Your task to perform on an android device: turn on notifications settings in the gmail app Image 0: 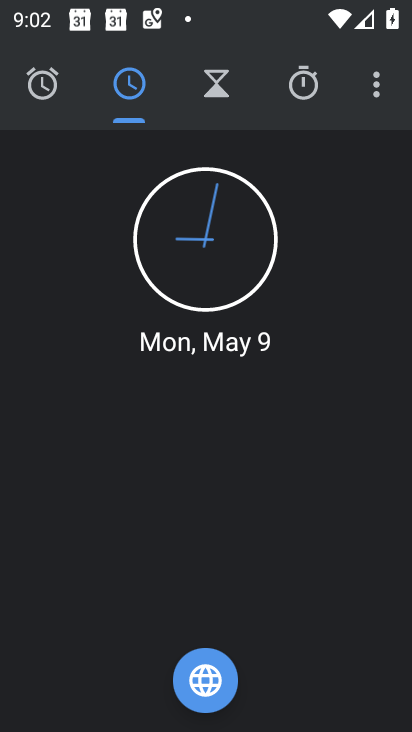
Step 0: press home button
Your task to perform on an android device: turn on notifications settings in the gmail app Image 1: 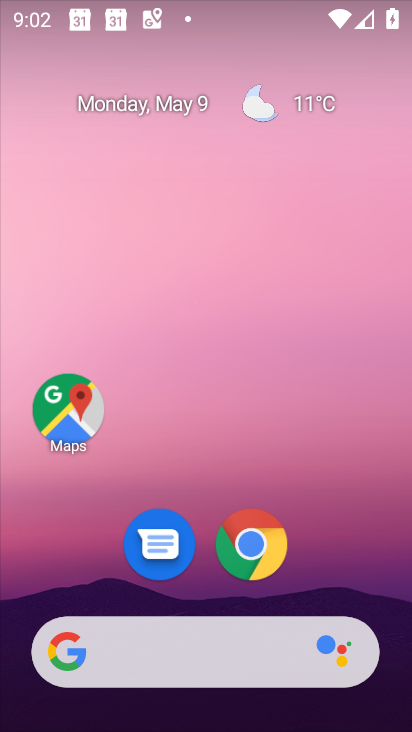
Step 1: drag from (390, 592) to (392, 234)
Your task to perform on an android device: turn on notifications settings in the gmail app Image 2: 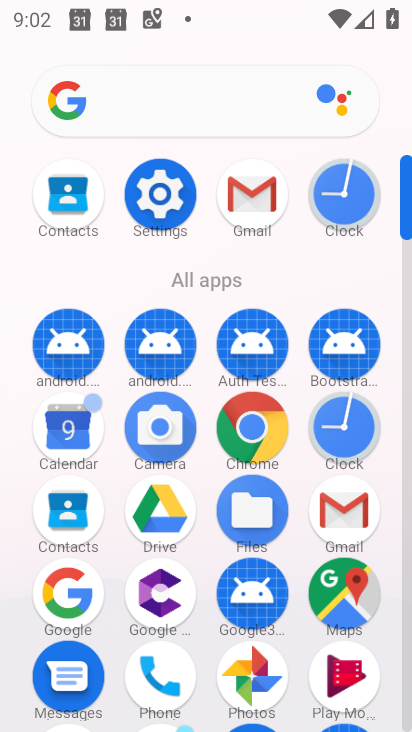
Step 2: click (336, 510)
Your task to perform on an android device: turn on notifications settings in the gmail app Image 3: 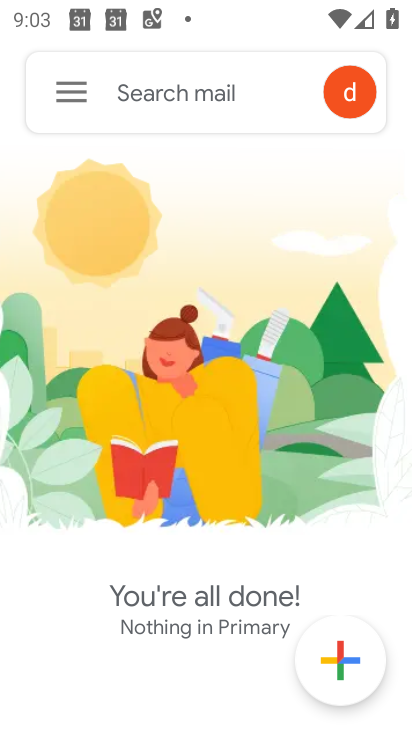
Step 3: click (75, 89)
Your task to perform on an android device: turn on notifications settings in the gmail app Image 4: 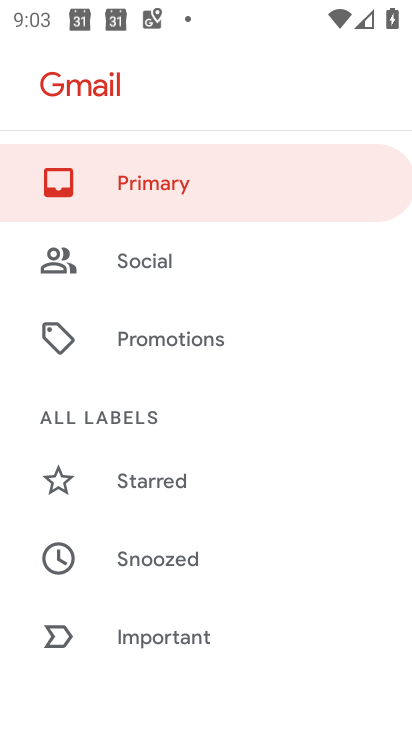
Step 4: drag from (376, 635) to (375, 344)
Your task to perform on an android device: turn on notifications settings in the gmail app Image 5: 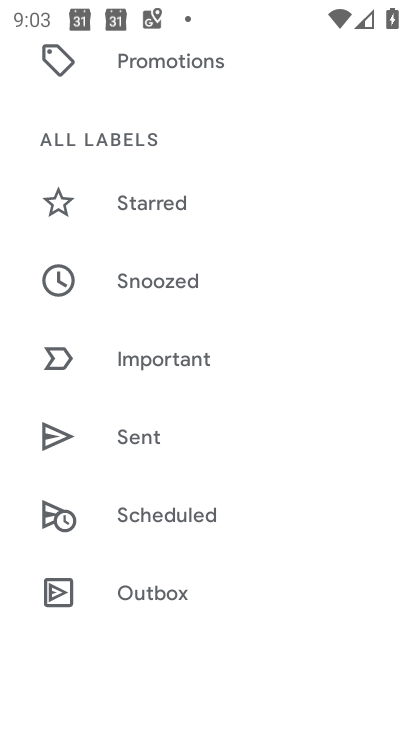
Step 5: drag from (312, 623) to (297, 311)
Your task to perform on an android device: turn on notifications settings in the gmail app Image 6: 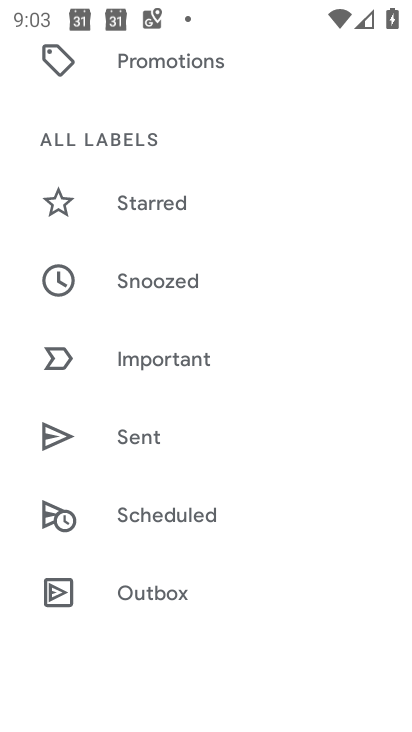
Step 6: drag from (341, 554) to (306, 244)
Your task to perform on an android device: turn on notifications settings in the gmail app Image 7: 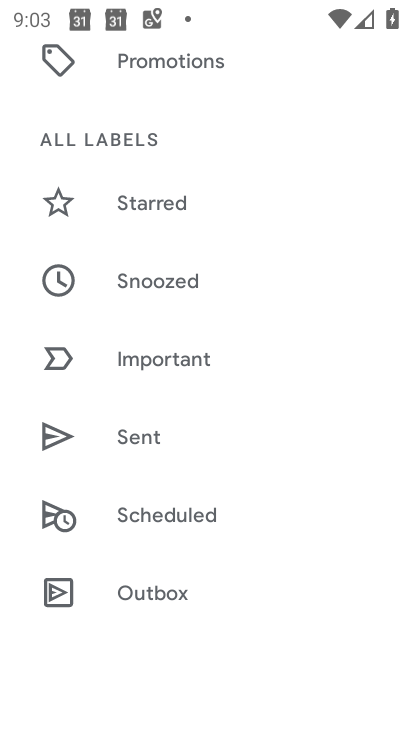
Step 7: drag from (327, 474) to (335, 205)
Your task to perform on an android device: turn on notifications settings in the gmail app Image 8: 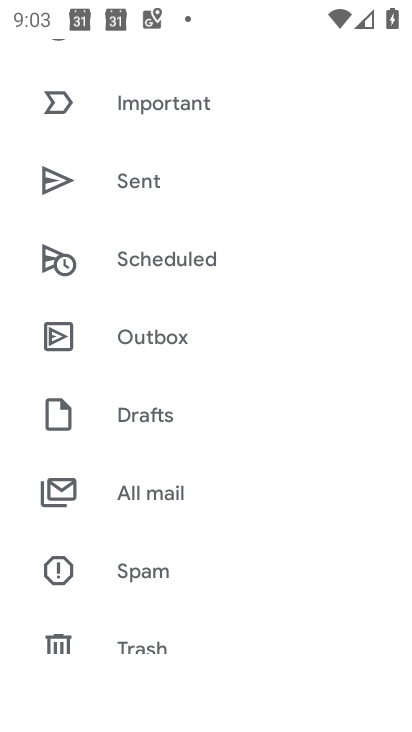
Step 8: drag from (359, 601) to (364, 156)
Your task to perform on an android device: turn on notifications settings in the gmail app Image 9: 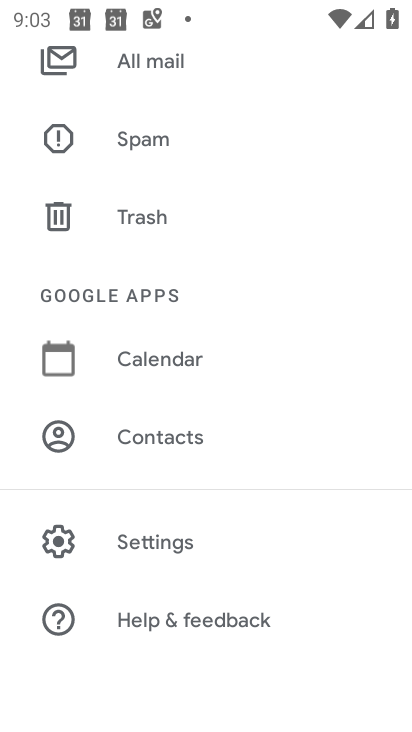
Step 9: click (164, 543)
Your task to perform on an android device: turn on notifications settings in the gmail app Image 10: 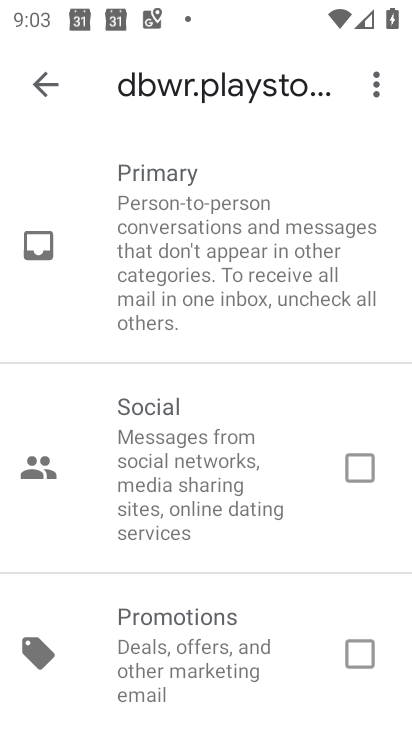
Step 10: click (45, 84)
Your task to perform on an android device: turn on notifications settings in the gmail app Image 11: 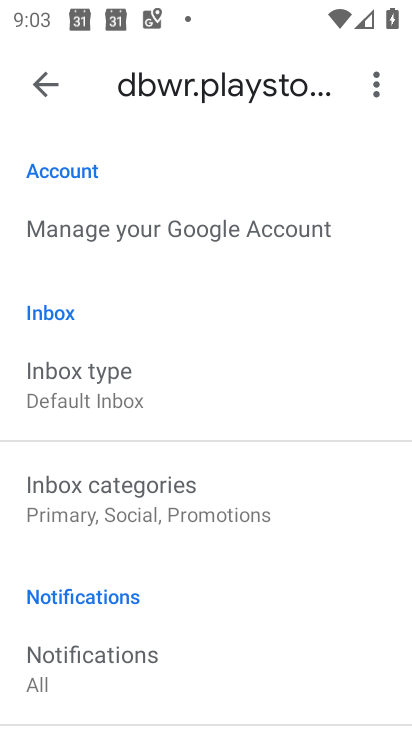
Step 11: click (67, 227)
Your task to perform on an android device: turn on notifications settings in the gmail app Image 12: 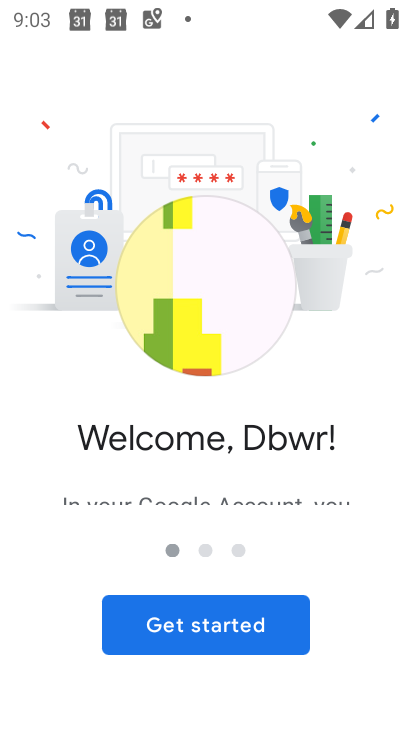
Step 12: click (220, 612)
Your task to perform on an android device: turn on notifications settings in the gmail app Image 13: 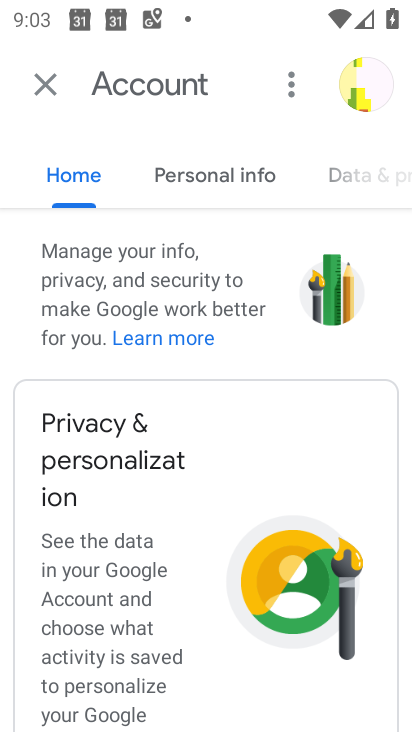
Step 13: press back button
Your task to perform on an android device: turn on notifications settings in the gmail app Image 14: 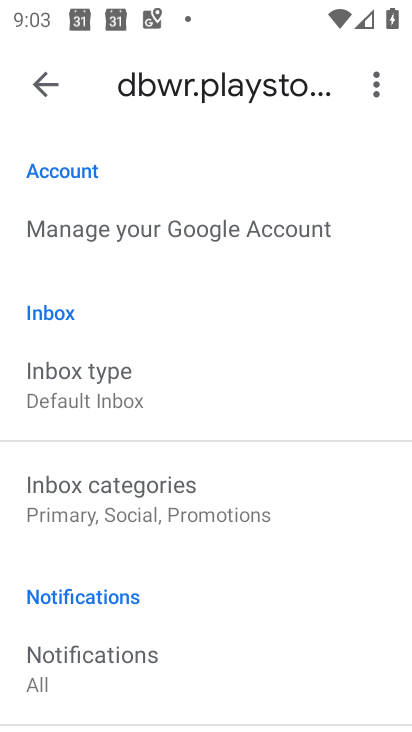
Step 14: click (40, 86)
Your task to perform on an android device: turn on notifications settings in the gmail app Image 15: 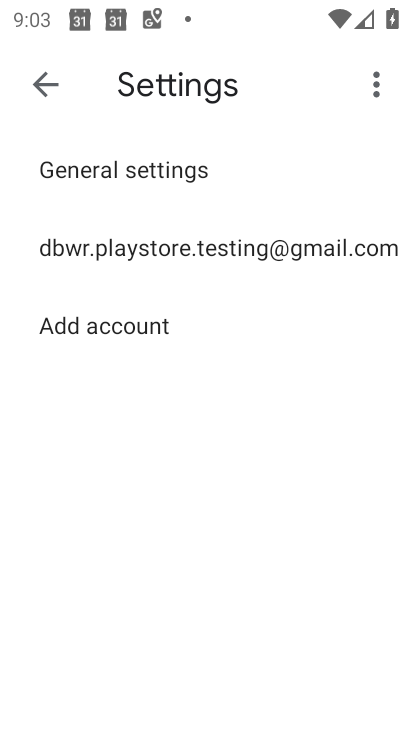
Step 15: click (99, 162)
Your task to perform on an android device: turn on notifications settings in the gmail app Image 16: 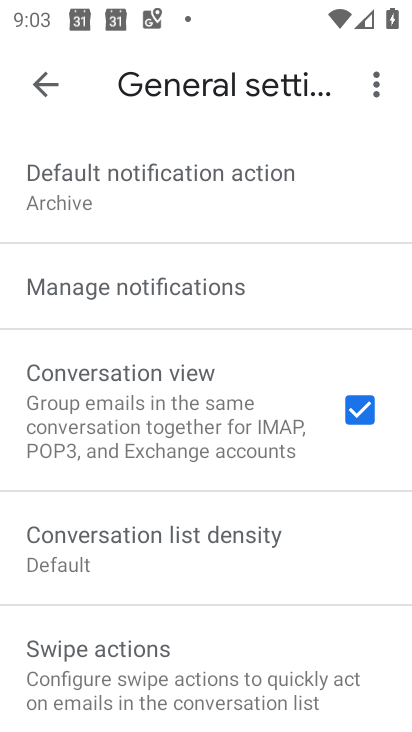
Step 16: click (118, 290)
Your task to perform on an android device: turn on notifications settings in the gmail app Image 17: 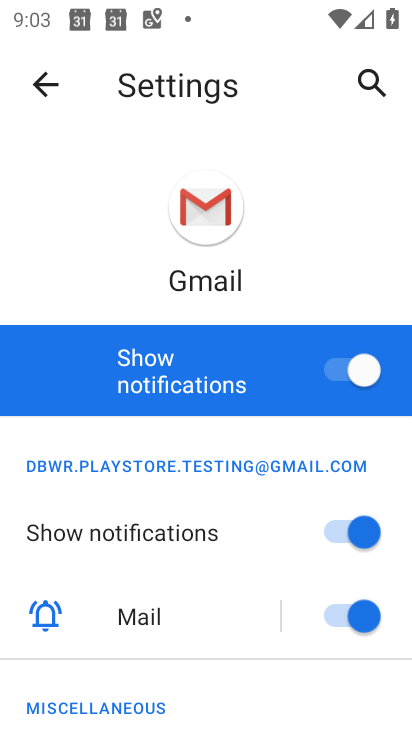
Step 17: click (334, 375)
Your task to perform on an android device: turn on notifications settings in the gmail app Image 18: 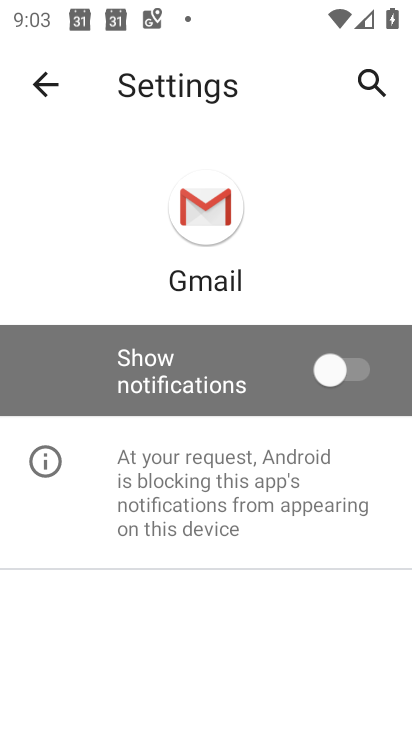
Step 18: task complete